Your task to perform on an android device: install app "Skype" Image 0: 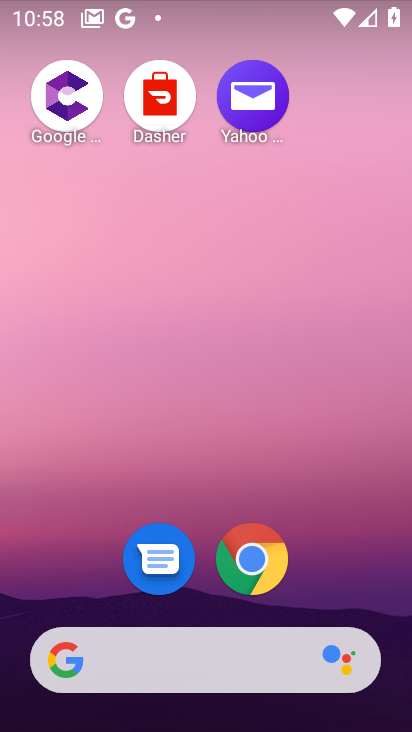
Step 0: drag from (83, 562) to (203, 13)
Your task to perform on an android device: install app "Skype" Image 1: 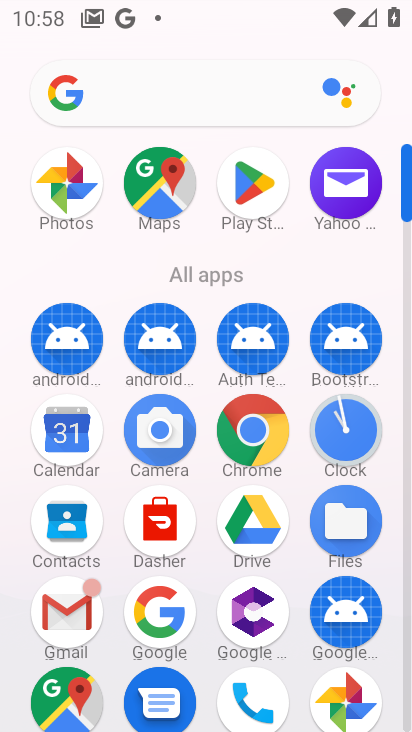
Step 1: click (240, 193)
Your task to perform on an android device: install app "Skype" Image 2: 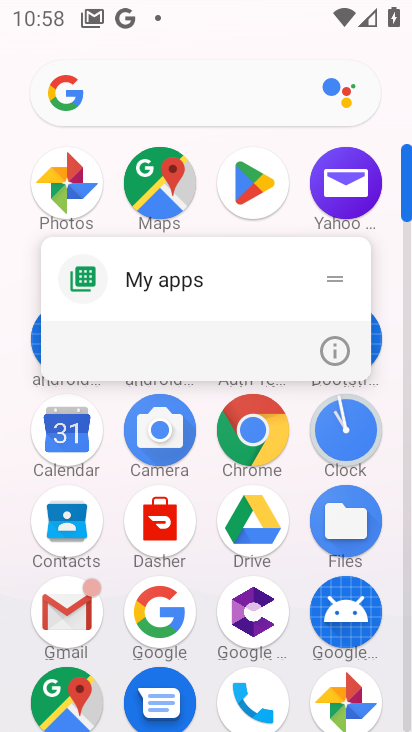
Step 2: click (264, 192)
Your task to perform on an android device: install app "Skype" Image 3: 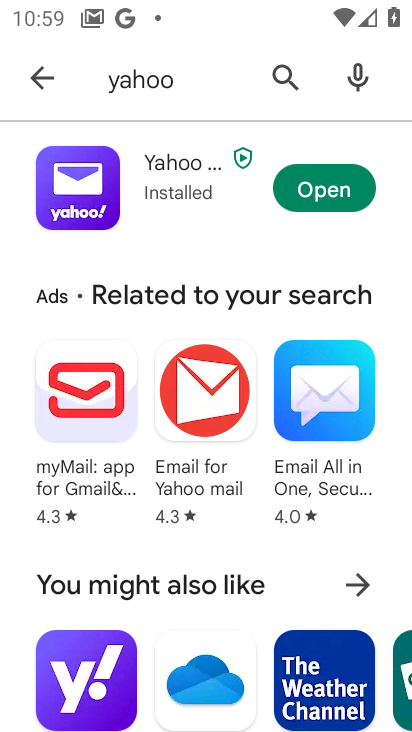
Step 3: drag from (194, 510) to (250, 131)
Your task to perform on an android device: install app "Skype" Image 4: 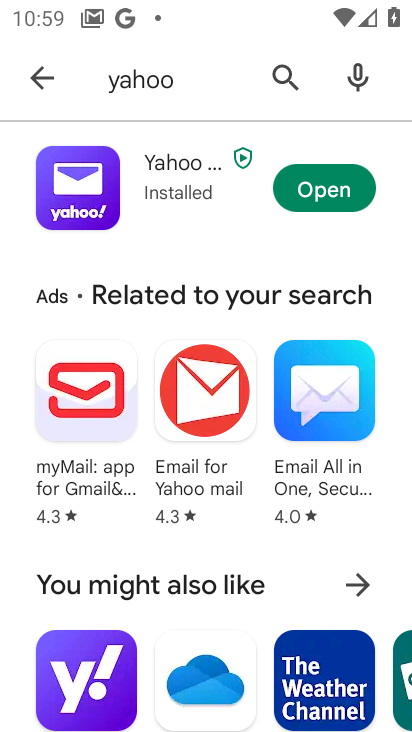
Step 4: drag from (171, 531) to (219, 721)
Your task to perform on an android device: install app "Skype" Image 5: 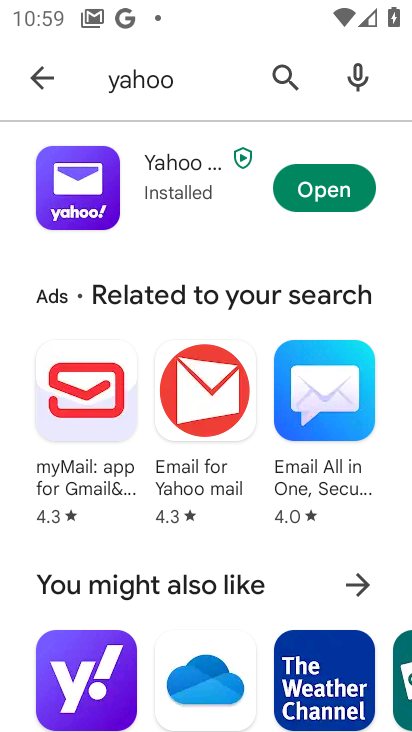
Step 5: click (276, 75)
Your task to perform on an android device: install app "Skype" Image 6: 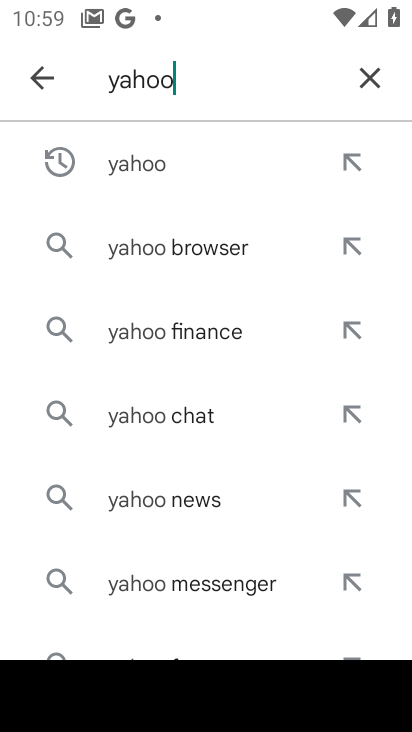
Step 6: click (384, 72)
Your task to perform on an android device: install app "Skype" Image 7: 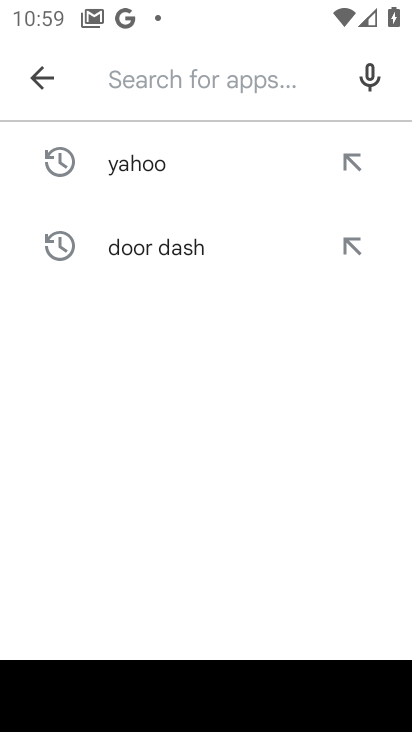
Step 7: click (197, 73)
Your task to perform on an android device: install app "Skype" Image 8: 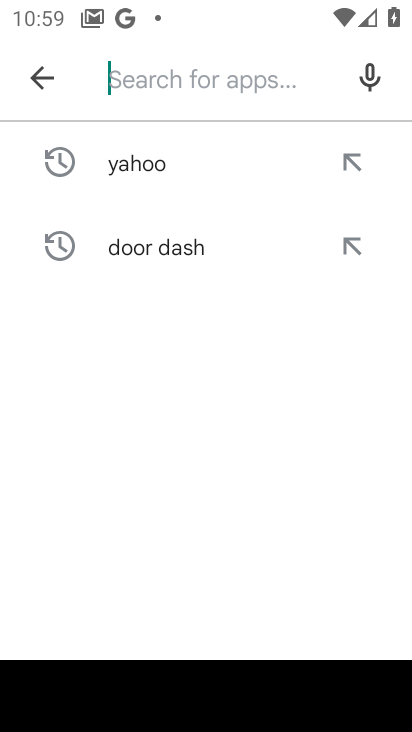
Step 8: type "skype"
Your task to perform on an android device: install app "Skype" Image 9: 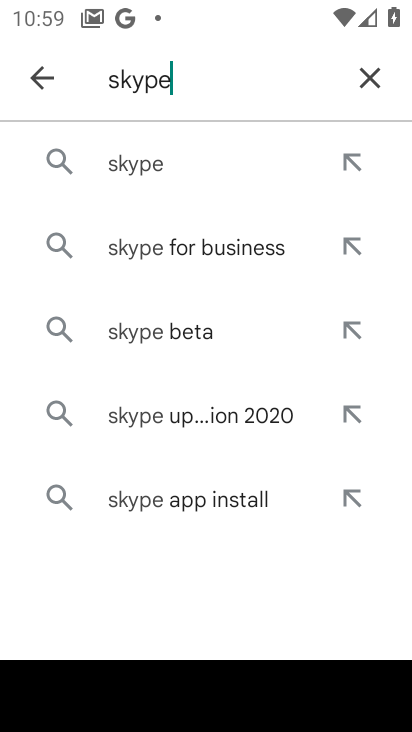
Step 9: click (159, 158)
Your task to perform on an android device: install app "Skype" Image 10: 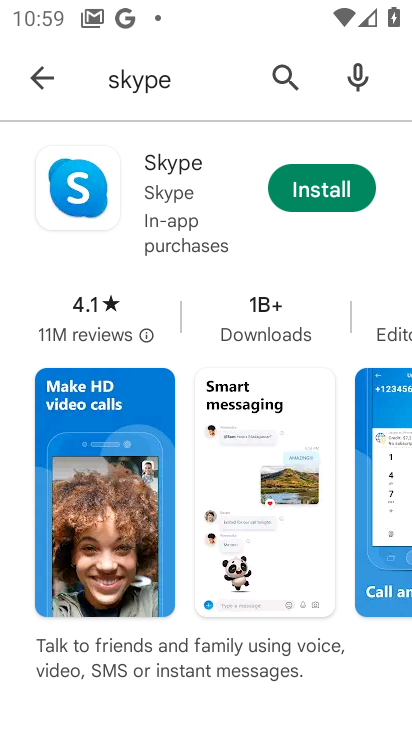
Step 10: click (289, 191)
Your task to perform on an android device: install app "Skype" Image 11: 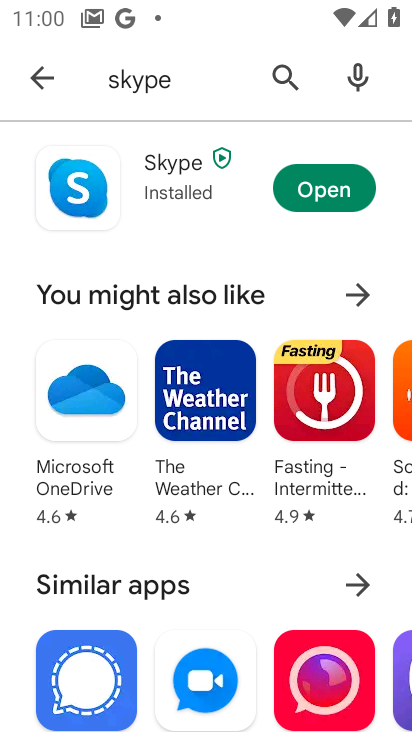
Step 11: click (306, 190)
Your task to perform on an android device: install app "Skype" Image 12: 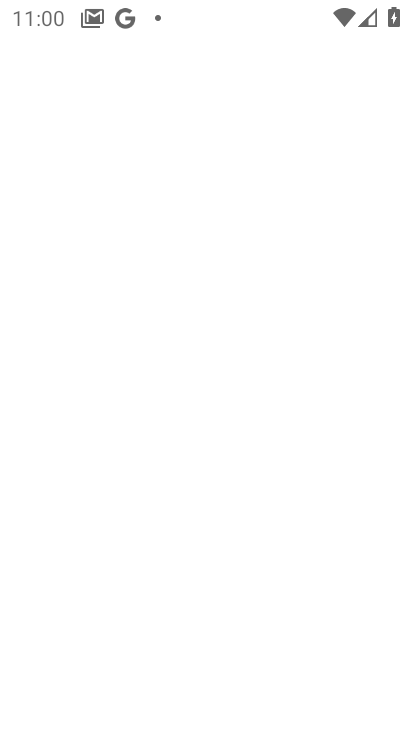
Step 12: task complete